Your task to perform on an android device: toggle priority inbox in the gmail app Image 0: 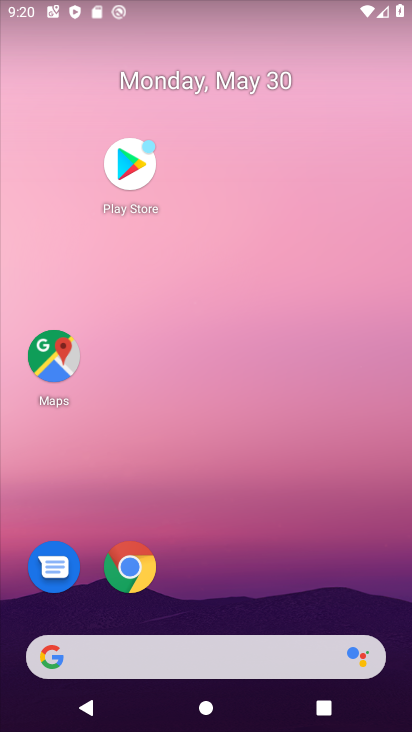
Step 0: drag from (178, 628) to (310, 14)
Your task to perform on an android device: toggle priority inbox in the gmail app Image 1: 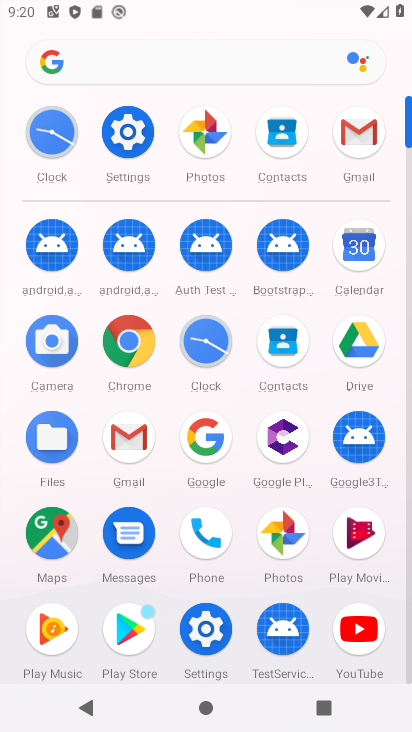
Step 1: click (359, 153)
Your task to perform on an android device: toggle priority inbox in the gmail app Image 2: 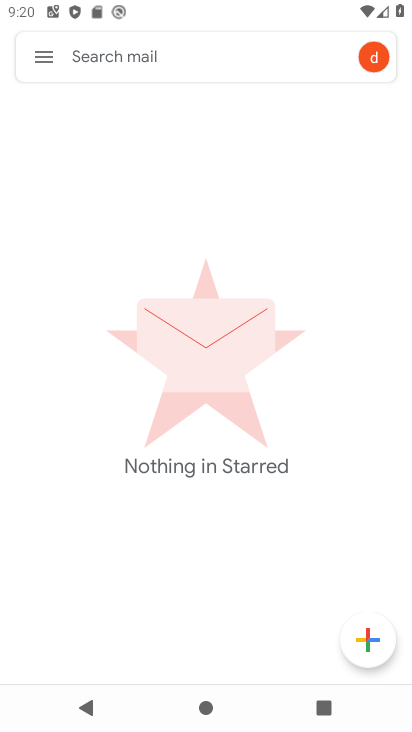
Step 2: click (40, 56)
Your task to perform on an android device: toggle priority inbox in the gmail app Image 3: 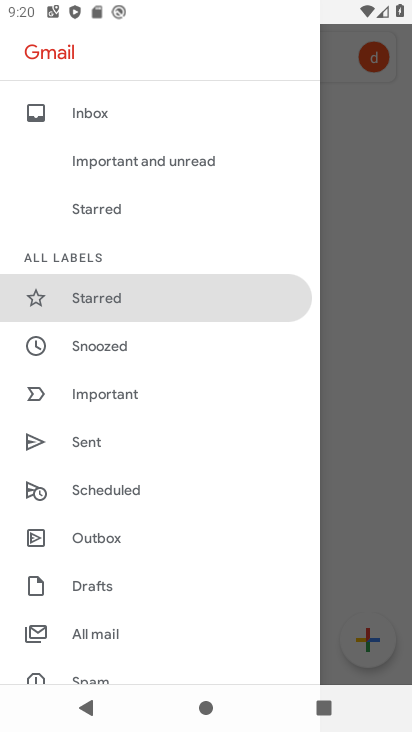
Step 3: drag from (81, 676) to (164, 234)
Your task to perform on an android device: toggle priority inbox in the gmail app Image 4: 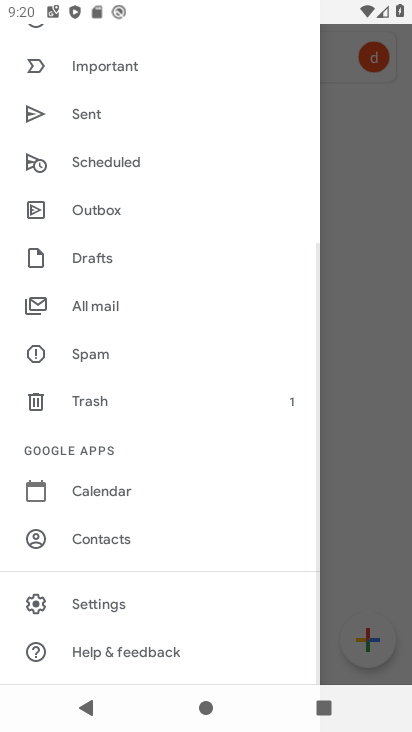
Step 4: click (98, 618)
Your task to perform on an android device: toggle priority inbox in the gmail app Image 5: 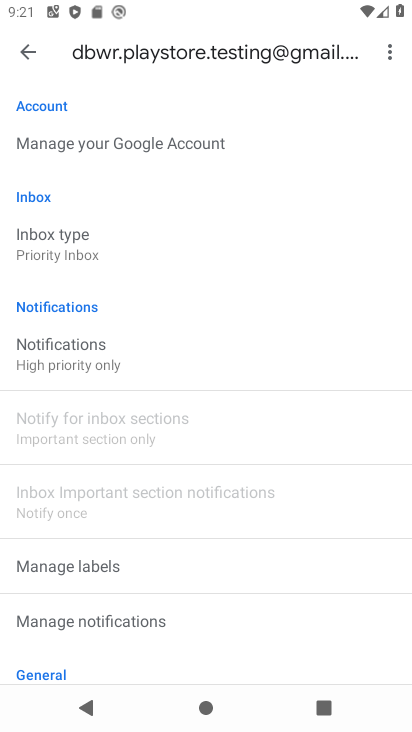
Step 5: click (121, 371)
Your task to perform on an android device: toggle priority inbox in the gmail app Image 6: 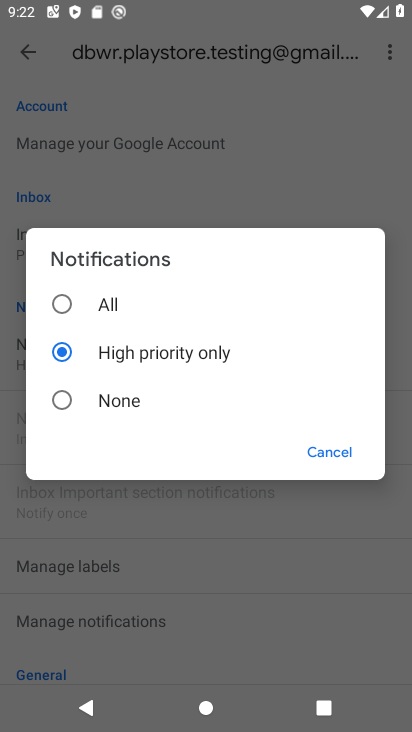
Step 6: task complete